Your task to perform on an android device: Is it going to rain this weekend? Image 0: 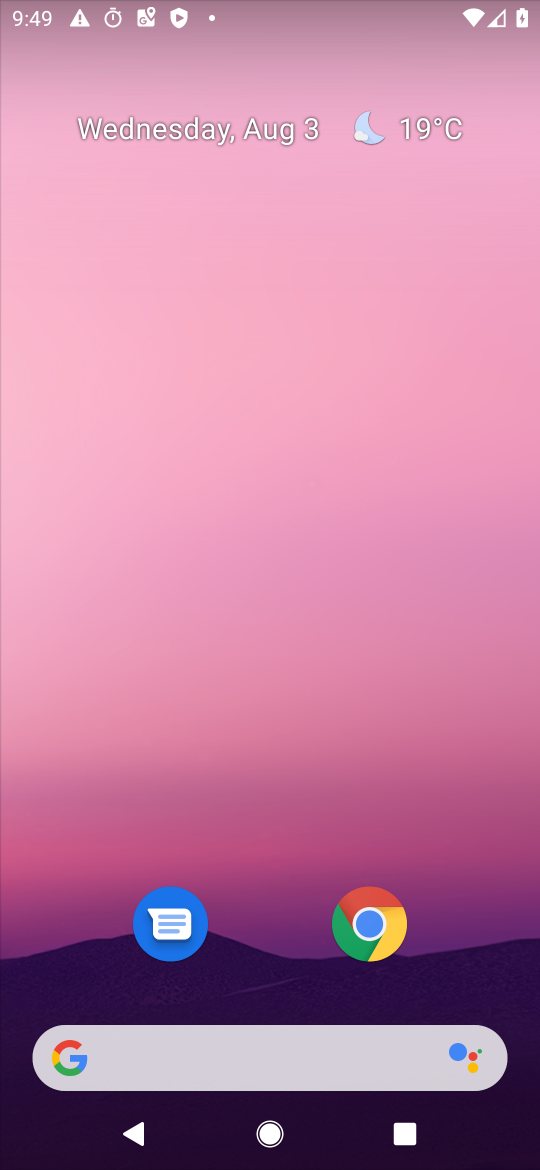
Step 0: click (362, 126)
Your task to perform on an android device: Is it going to rain this weekend? Image 1: 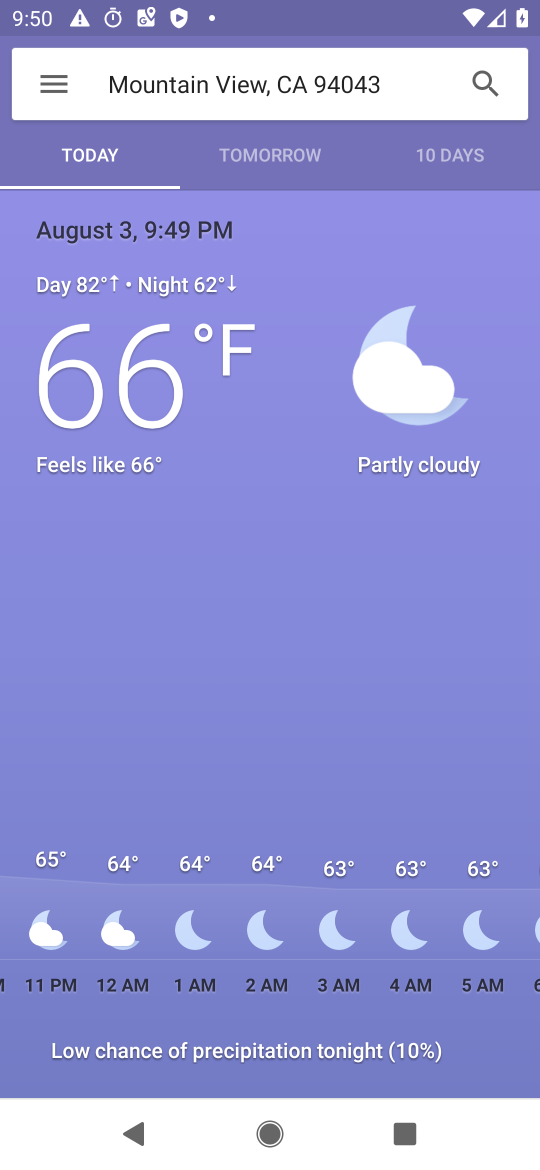
Step 1: click (442, 150)
Your task to perform on an android device: Is it going to rain this weekend? Image 2: 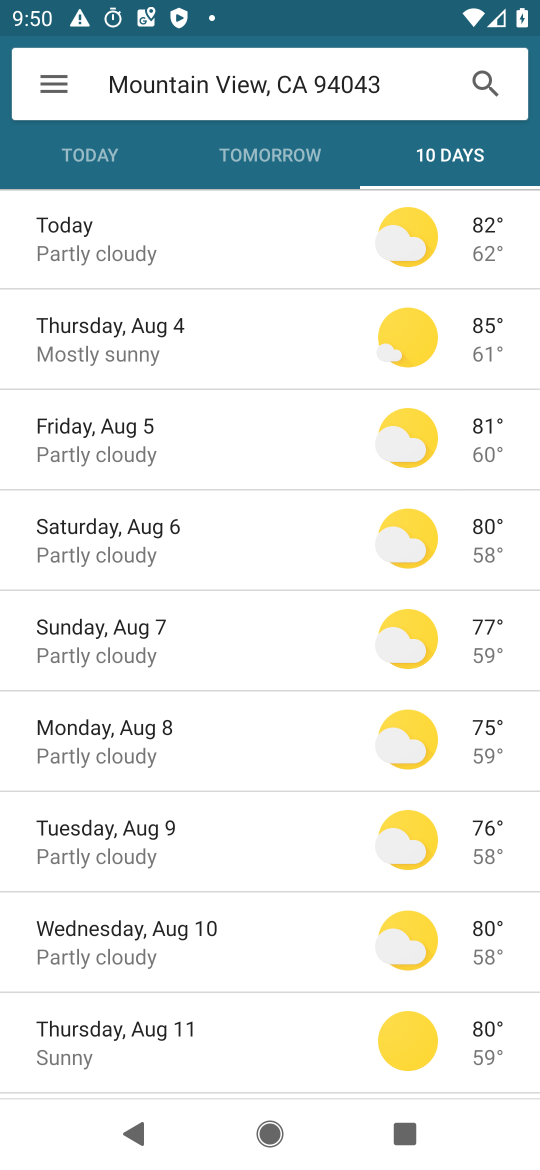
Step 2: click (215, 528)
Your task to perform on an android device: Is it going to rain this weekend? Image 3: 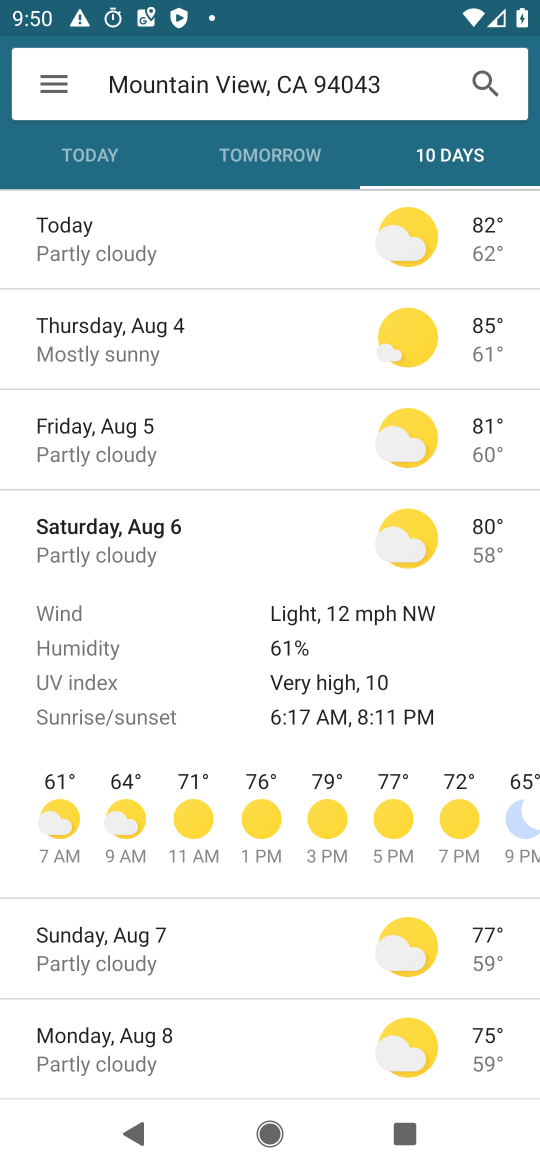
Step 3: click (197, 941)
Your task to perform on an android device: Is it going to rain this weekend? Image 4: 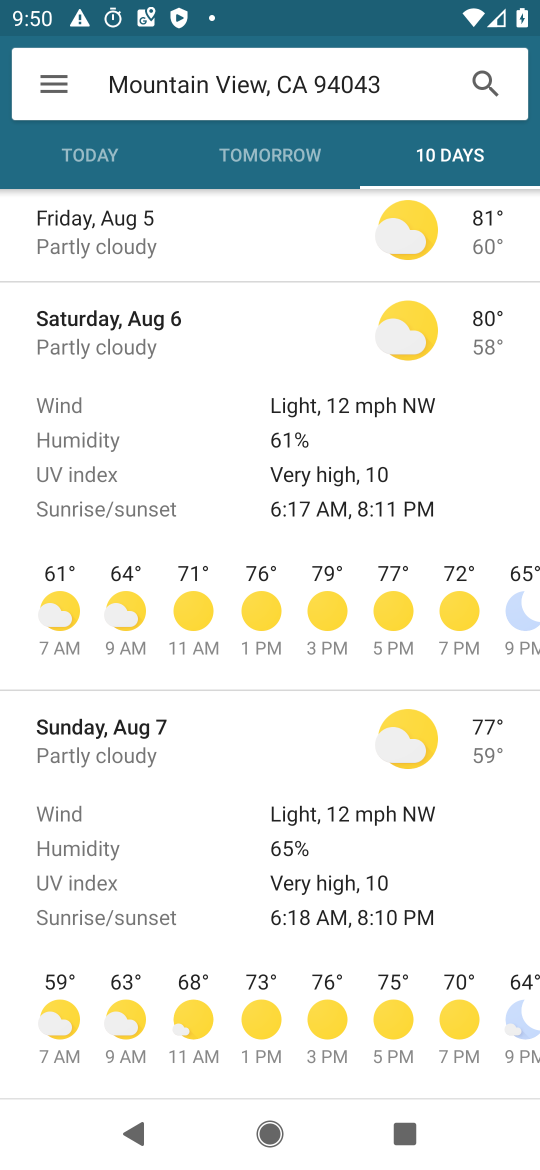
Step 4: task complete